Your task to perform on an android device: Search for a new water heater on Home Depot Image 0: 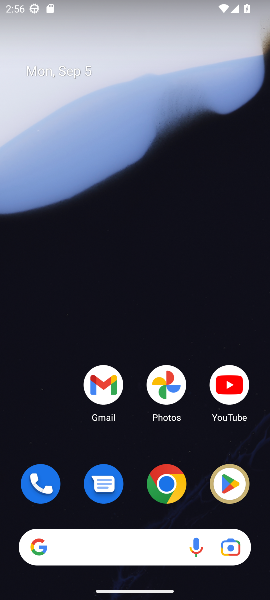
Step 0: click (168, 484)
Your task to perform on an android device: Search for a new water heater on Home Depot Image 1: 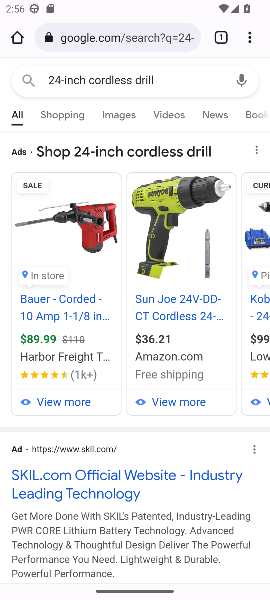
Step 1: click (123, 41)
Your task to perform on an android device: Search for a new water heater on Home Depot Image 2: 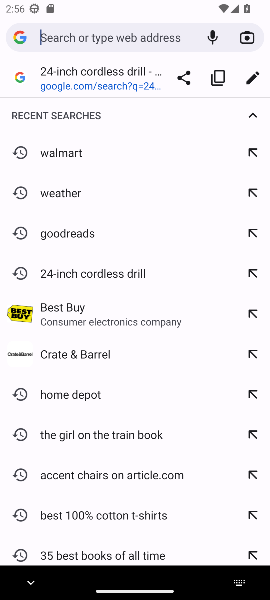
Step 2: type "Home Depot"
Your task to perform on an android device: Search for a new water heater on Home Depot Image 3: 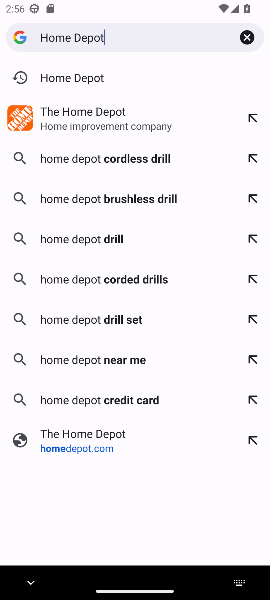
Step 3: click (57, 115)
Your task to perform on an android device: Search for a new water heater on Home Depot Image 4: 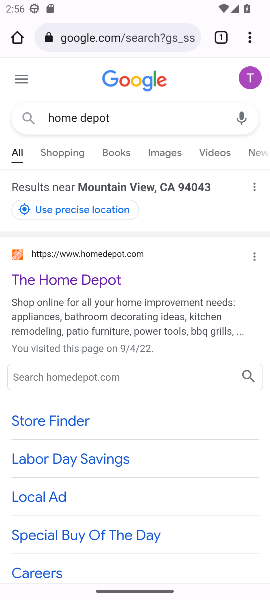
Step 4: click (107, 282)
Your task to perform on an android device: Search for a new water heater on Home Depot Image 5: 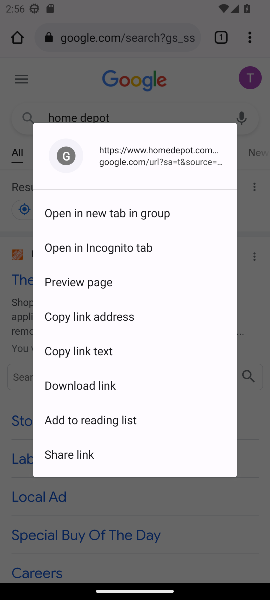
Step 5: click (253, 330)
Your task to perform on an android device: Search for a new water heater on Home Depot Image 6: 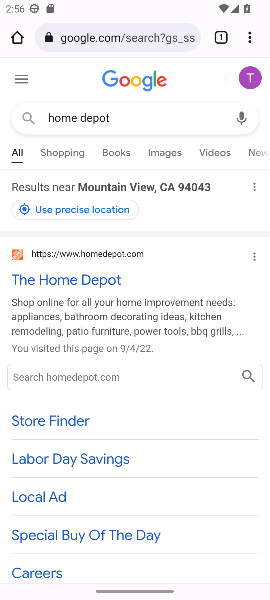
Step 6: click (65, 277)
Your task to perform on an android device: Search for a new water heater on Home Depot Image 7: 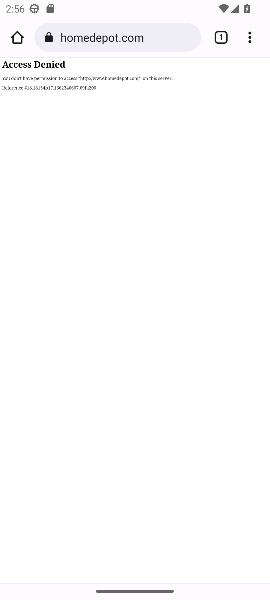
Step 7: task complete